Your task to perform on an android device: turn on improve location accuracy Image 0: 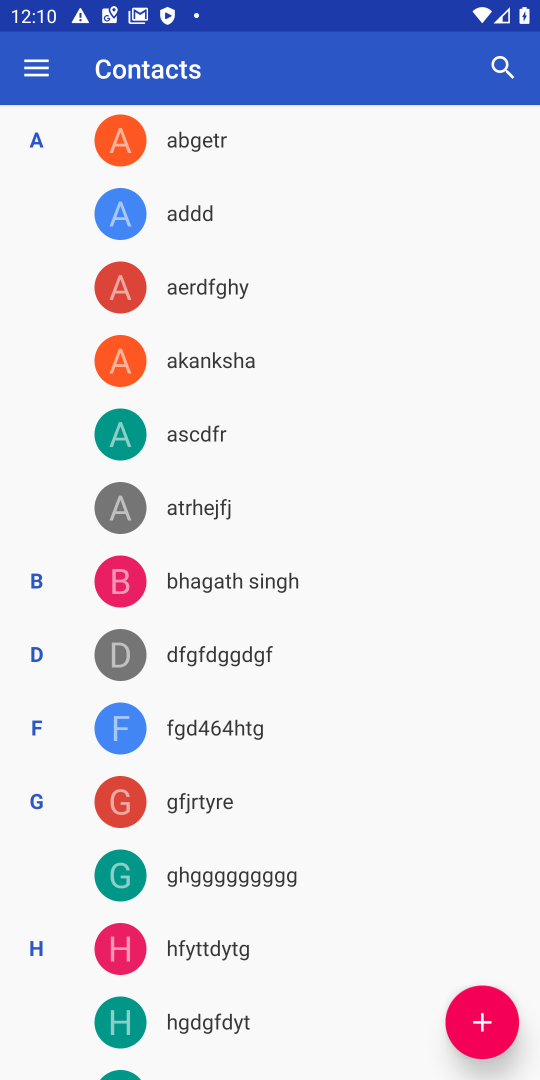
Step 0: press home button
Your task to perform on an android device: turn on improve location accuracy Image 1: 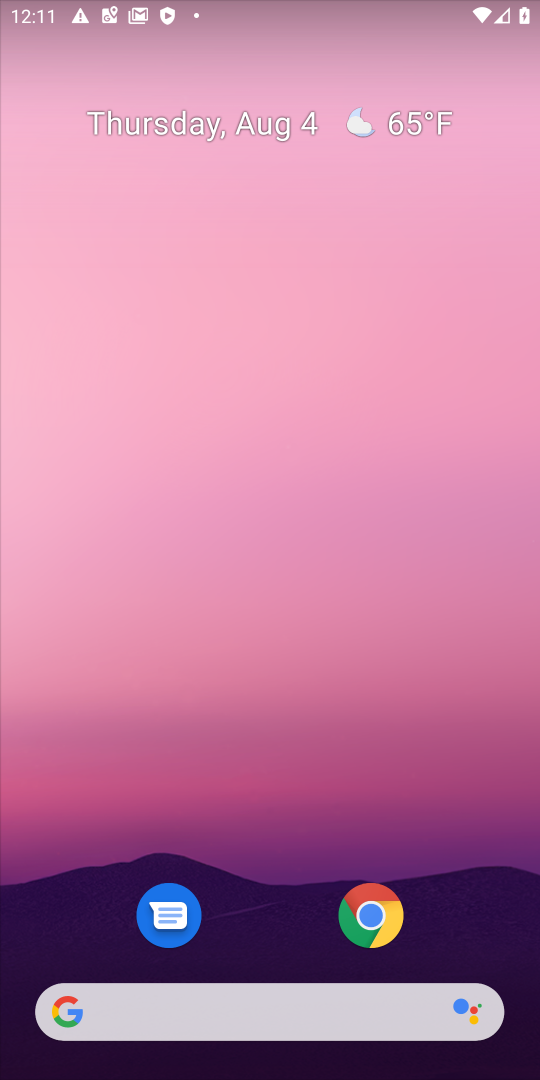
Step 1: drag from (264, 825) to (264, 30)
Your task to perform on an android device: turn on improve location accuracy Image 2: 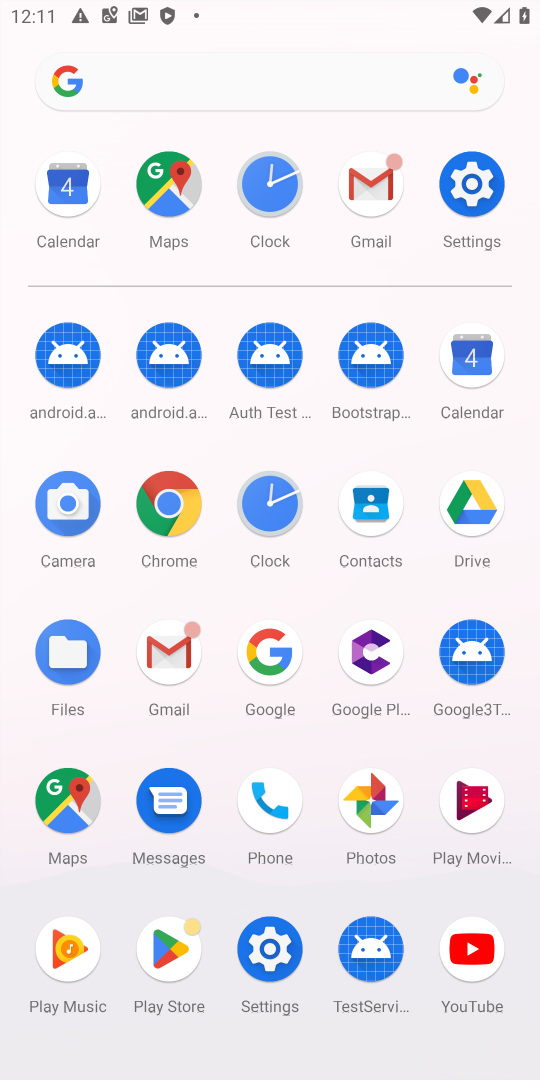
Step 2: click (464, 211)
Your task to perform on an android device: turn on improve location accuracy Image 3: 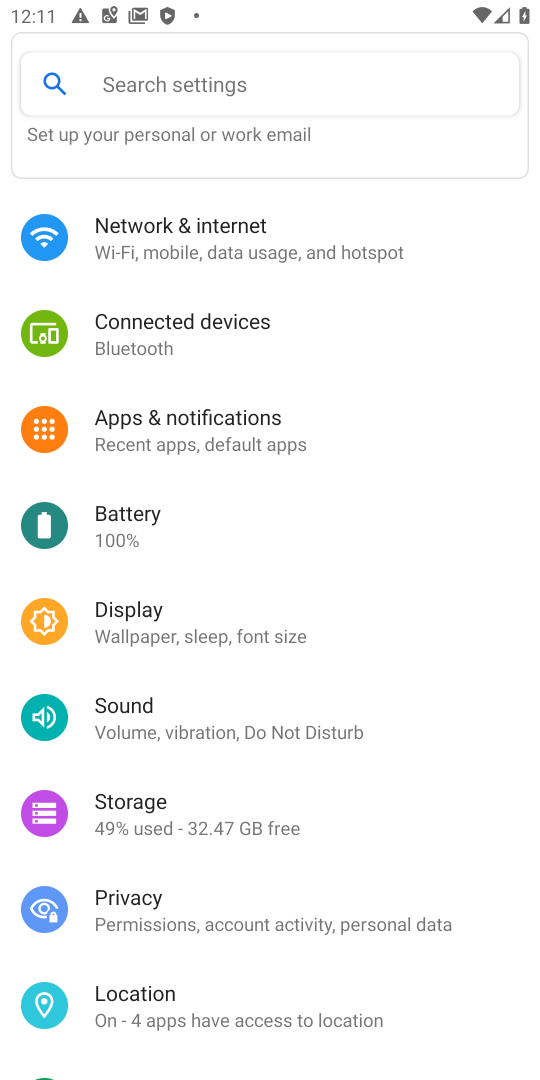
Step 3: click (221, 998)
Your task to perform on an android device: turn on improve location accuracy Image 4: 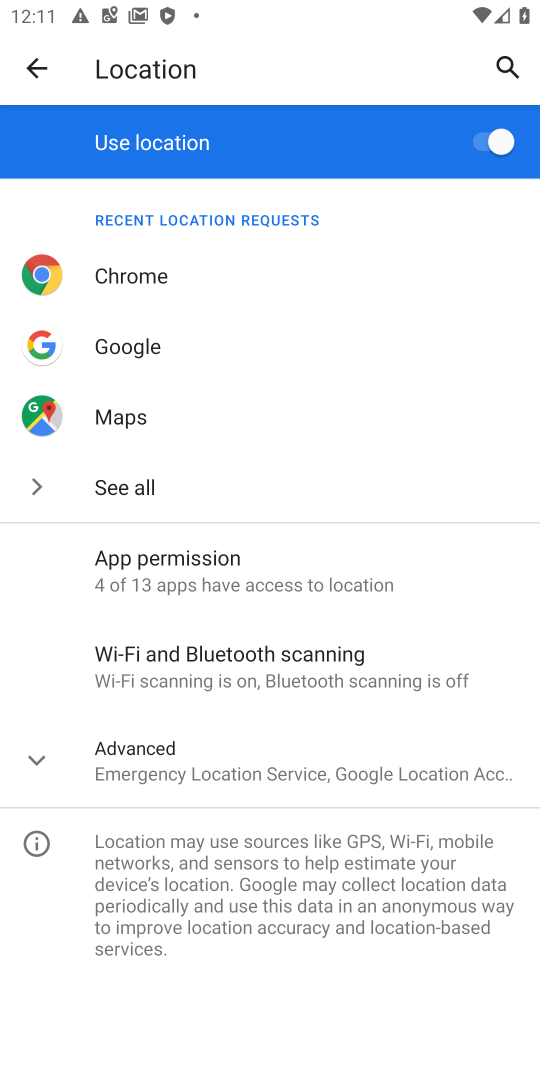
Step 4: click (217, 771)
Your task to perform on an android device: turn on improve location accuracy Image 5: 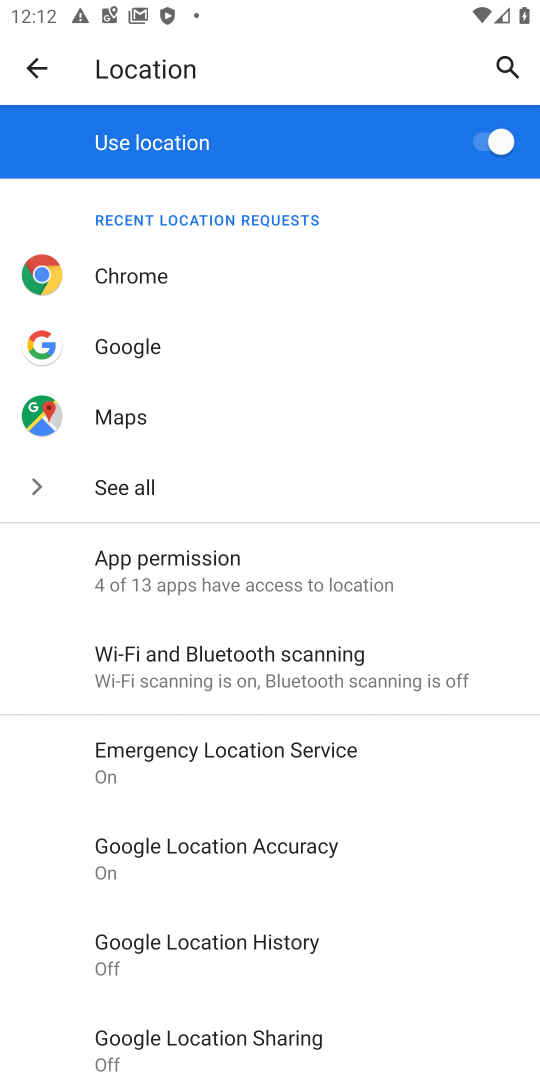
Step 5: click (308, 847)
Your task to perform on an android device: turn on improve location accuracy Image 6: 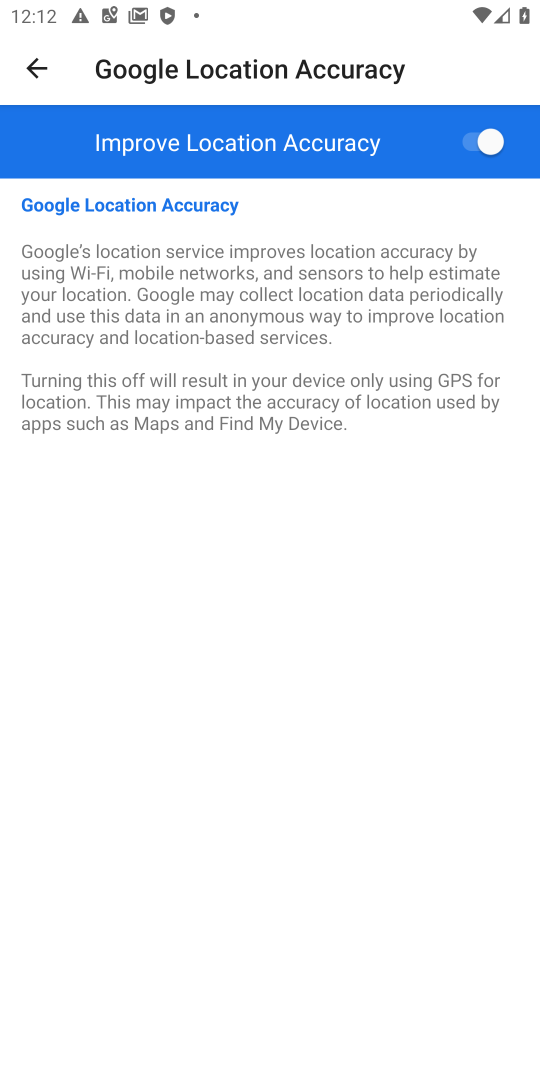
Step 6: task complete